Your task to perform on an android device: find snoozed emails in the gmail app Image 0: 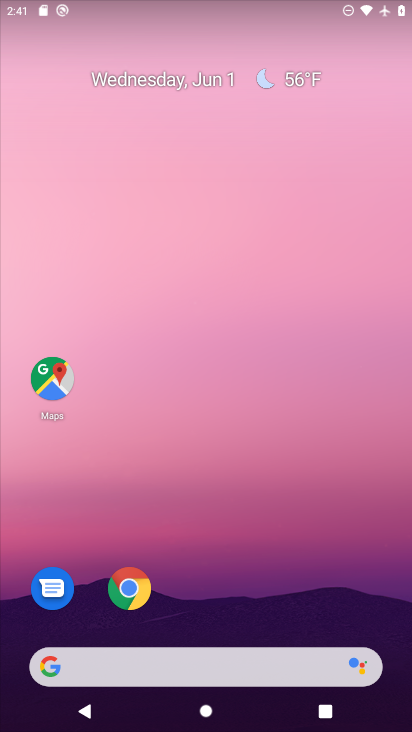
Step 0: drag from (270, 416) to (232, 0)
Your task to perform on an android device: find snoozed emails in the gmail app Image 1: 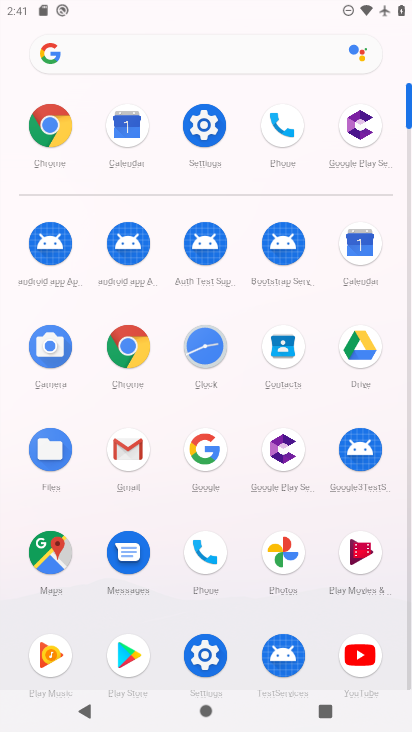
Step 1: click (132, 454)
Your task to perform on an android device: find snoozed emails in the gmail app Image 2: 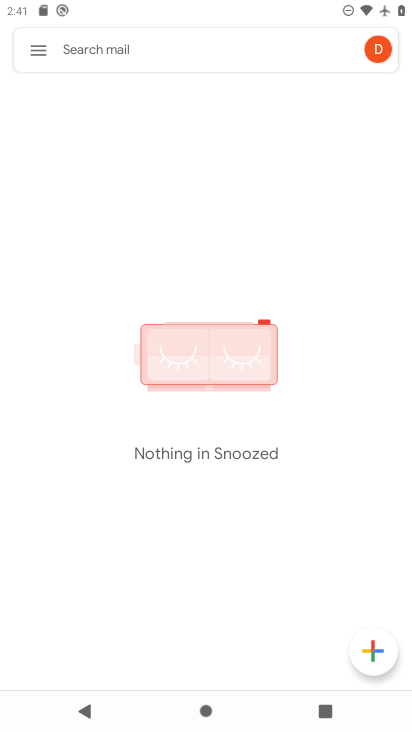
Step 2: task complete